Your task to perform on an android device: toggle sleep mode Image 0: 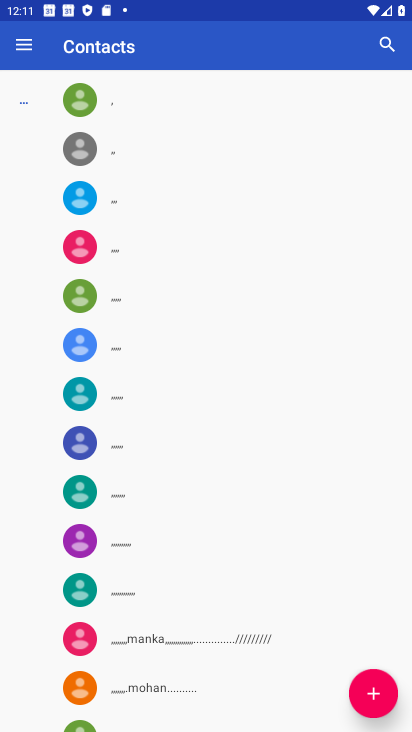
Step 0: press home button
Your task to perform on an android device: toggle sleep mode Image 1: 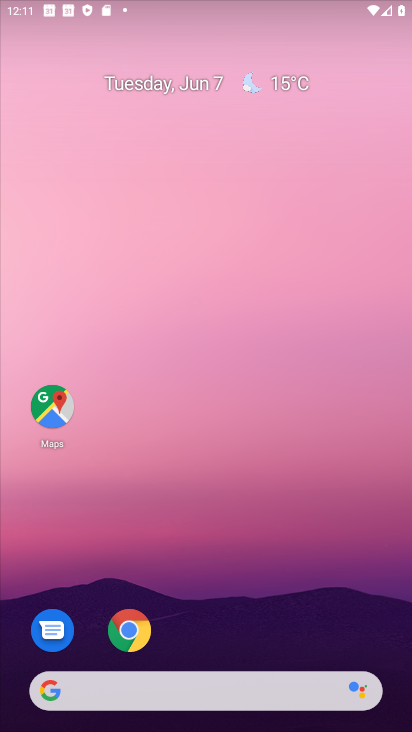
Step 1: drag from (356, 597) to (321, 170)
Your task to perform on an android device: toggle sleep mode Image 2: 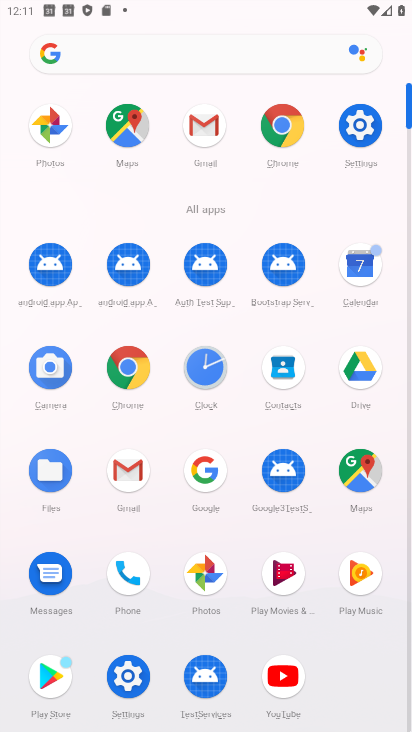
Step 2: click (112, 698)
Your task to perform on an android device: toggle sleep mode Image 3: 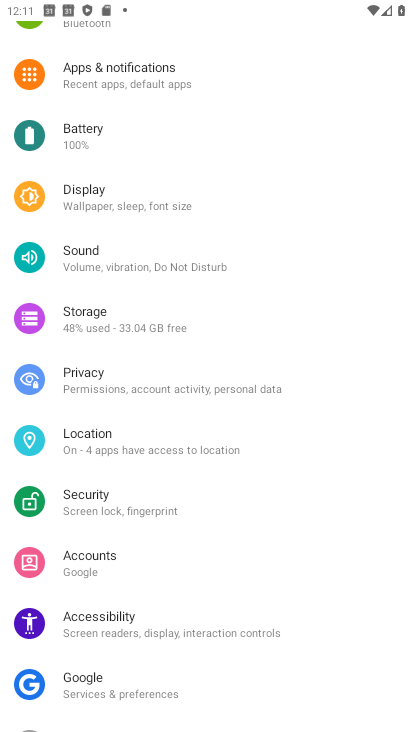
Step 3: drag from (249, 105) to (295, 586)
Your task to perform on an android device: toggle sleep mode Image 4: 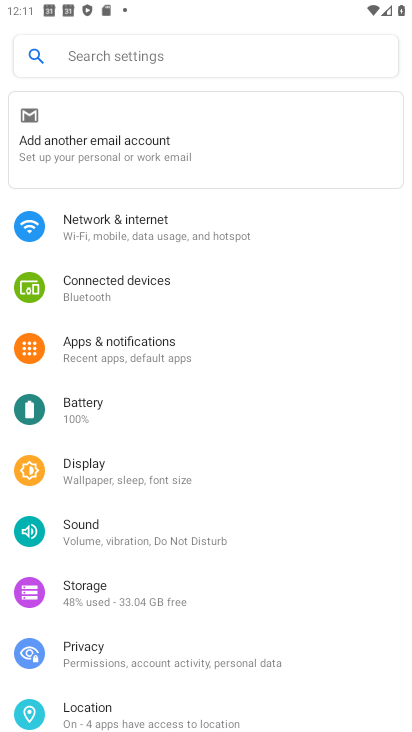
Step 4: click (233, 65)
Your task to perform on an android device: toggle sleep mode Image 5: 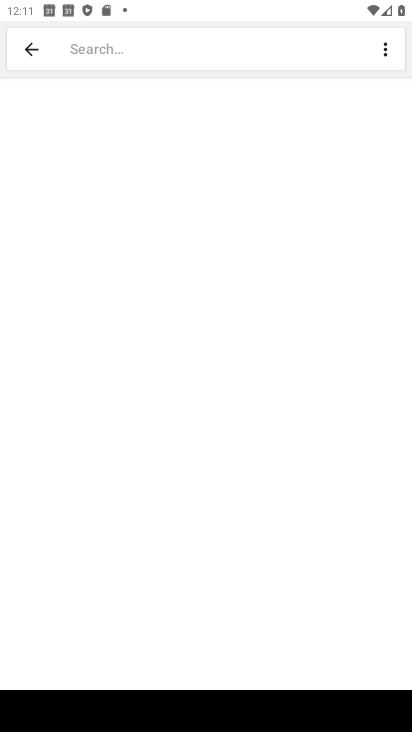
Step 5: type "sleep mode"
Your task to perform on an android device: toggle sleep mode Image 6: 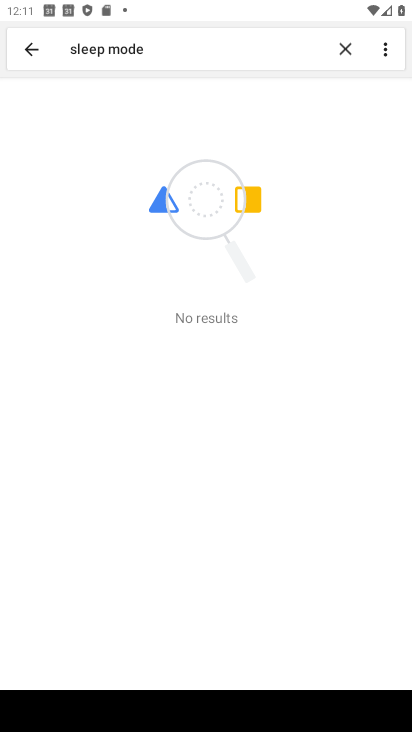
Step 6: task complete